Your task to perform on an android device: Go to Google Image 0: 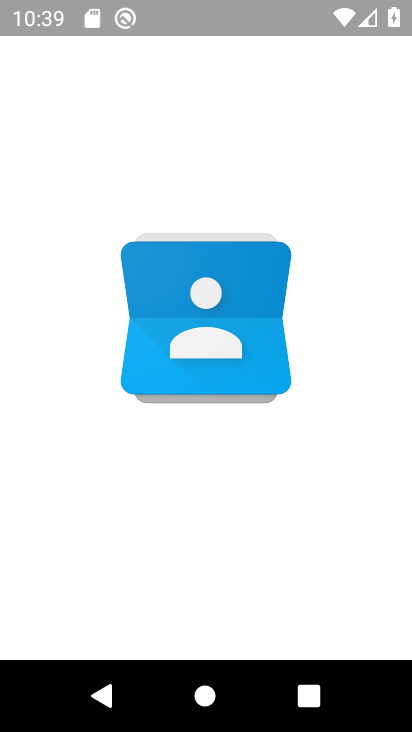
Step 0: click (309, 1)
Your task to perform on an android device: Go to Google Image 1: 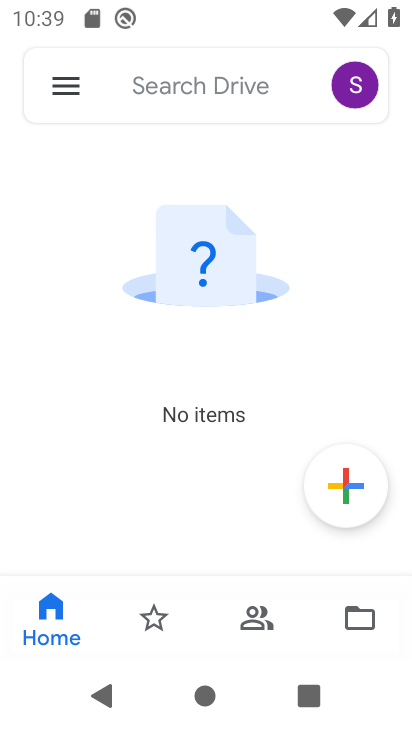
Step 1: press back button
Your task to perform on an android device: Go to Google Image 2: 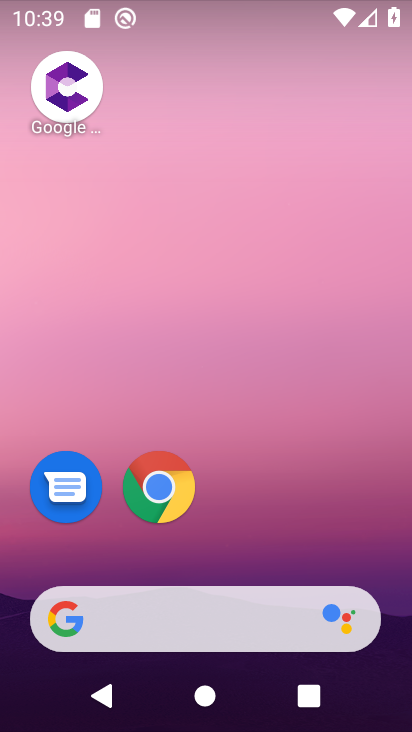
Step 2: drag from (265, 541) to (328, 9)
Your task to perform on an android device: Go to Google Image 3: 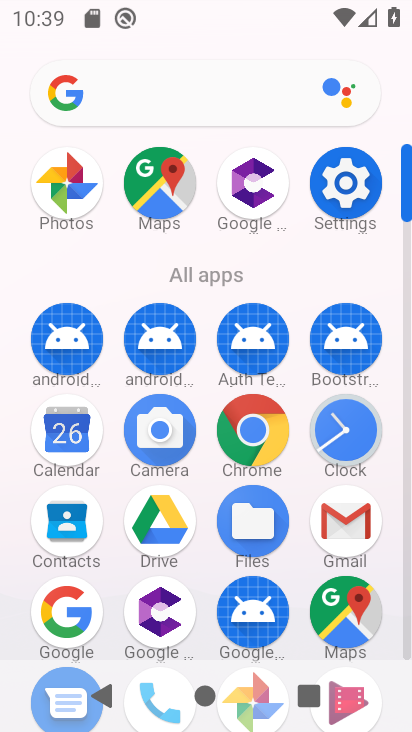
Step 3: click (72, 602)
Your task to perform on an android device: Go to Google Image 4: 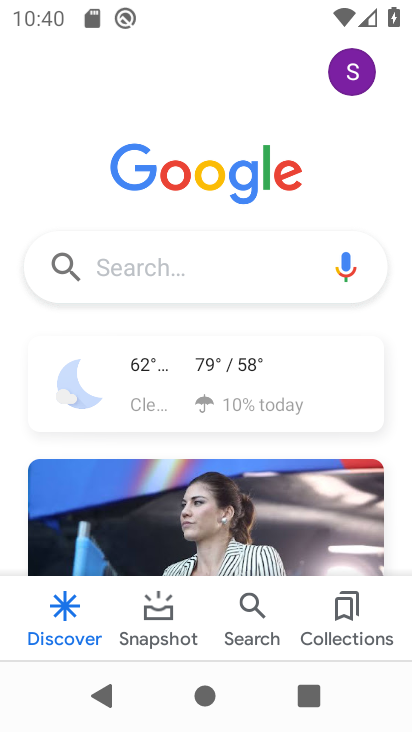
Step 4: task complete